Your task to perform on an android device: Open Google Maps Image 0: 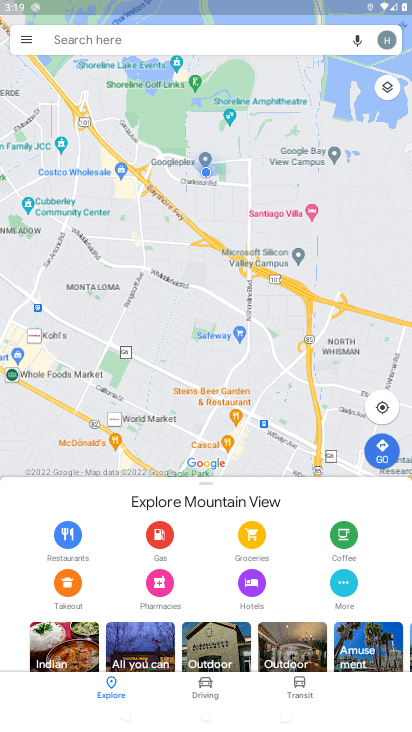
Step 0: task complete